Your task to perform on an android device: add a contact in the contacts app Image 0: 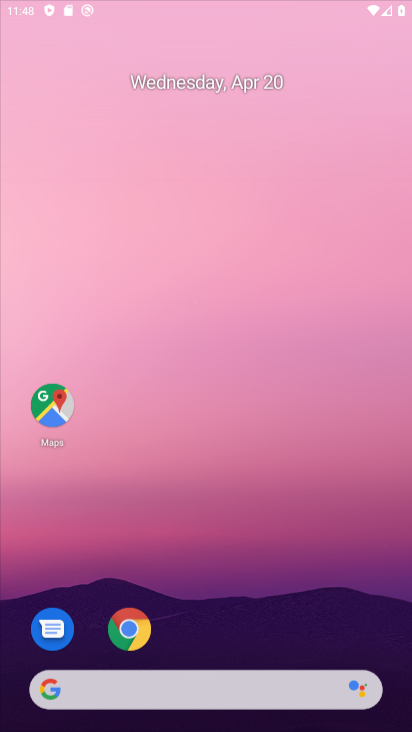
Step 0: click (273, 105)
Your task to perform on an android device: add a contact in the contacts app Image 1: 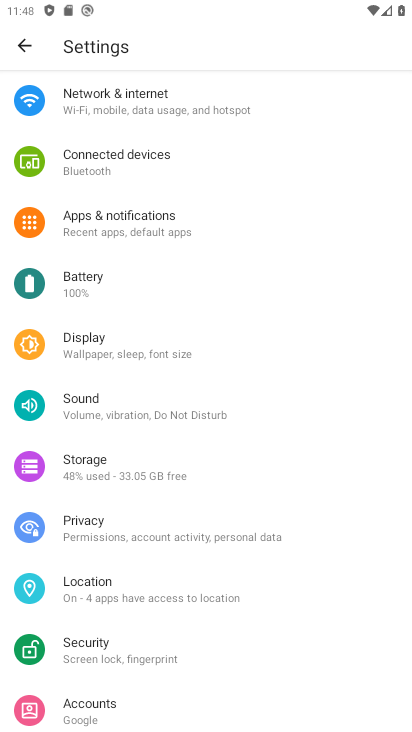
Step 1: press home button
Your task to perform on an android device: add a contact in the contacts app Image 2: 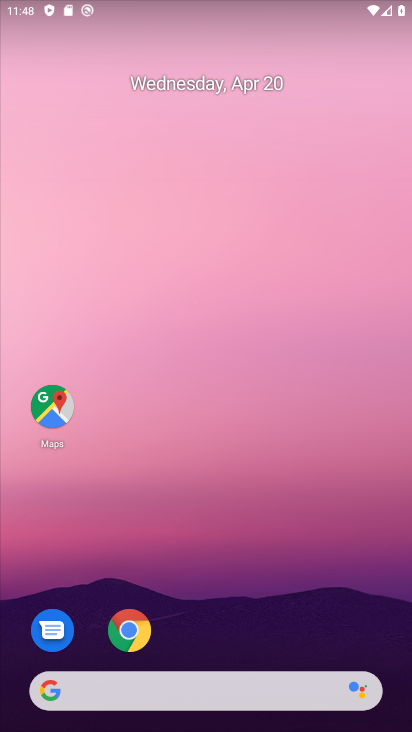
Step 2: drag from (332, 586) to (337, 146)
Your task to perform on an android device: add a contact in the contacts app Image 3: 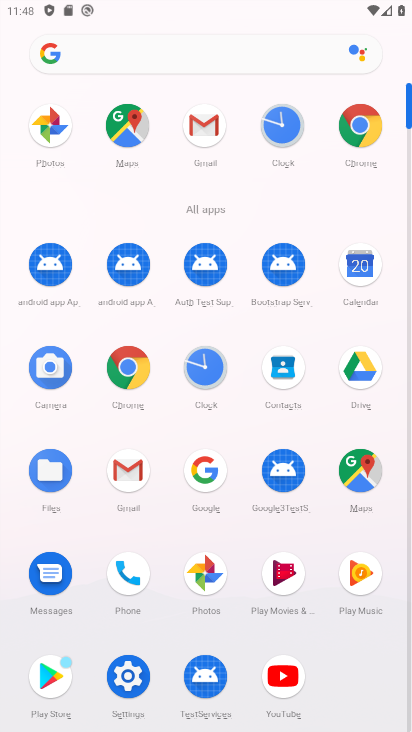
Step 3: click (287, 374)
Your task to perform on an android device: add a contact in the contacts app Image 4: 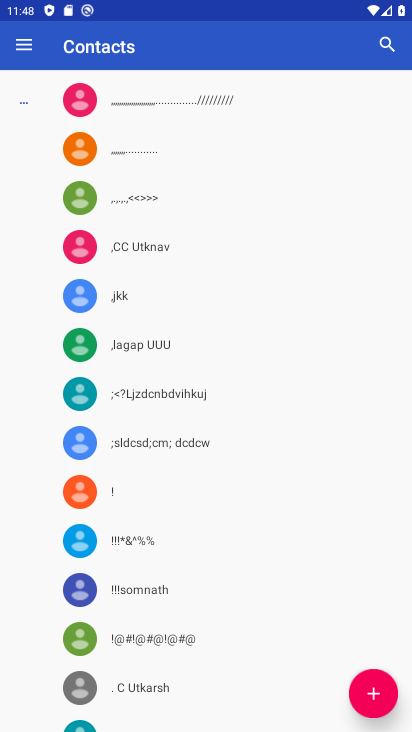
Step 4: click (378, 688)
Your task to perform on an android device: add a contact in the contacts app Image 5: 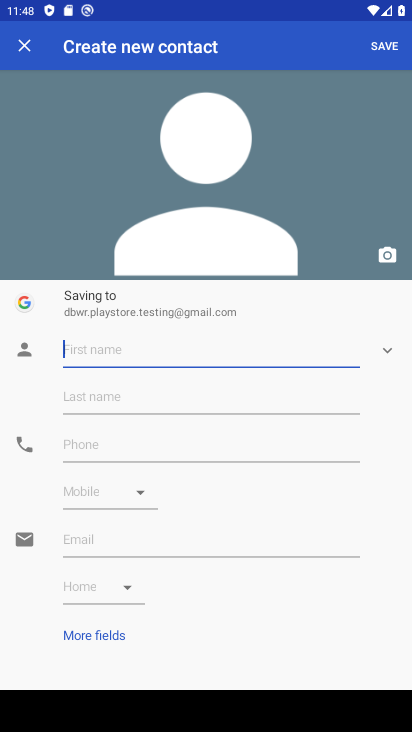
Step 5: click (236, 357)
Your task to perform on an android device: add a contact in the contacts app Image 6: 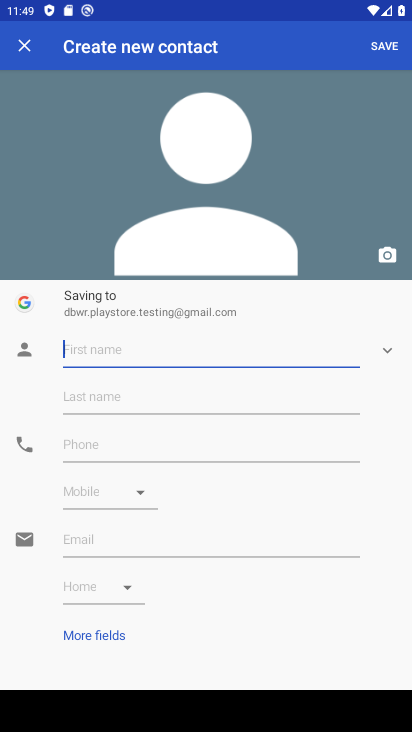
Step 6: type "nljhjlkhnjl"
Your task to perform on an android device: add a contact in the contacts app Image 7: 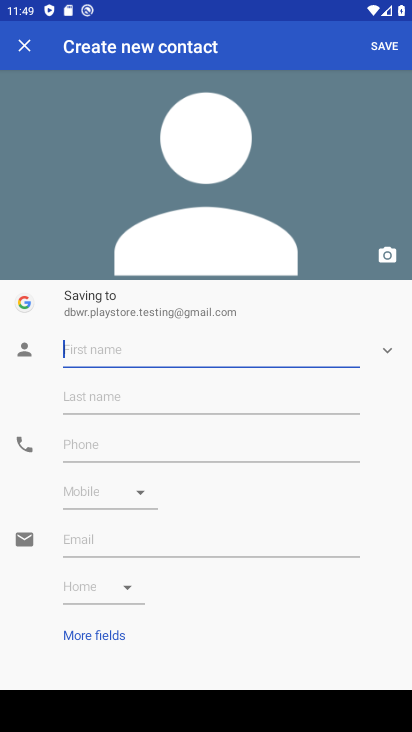
Step 7: click (227, 452)
Your task to perform on an android device: add a contact in the contacts app Image 8: 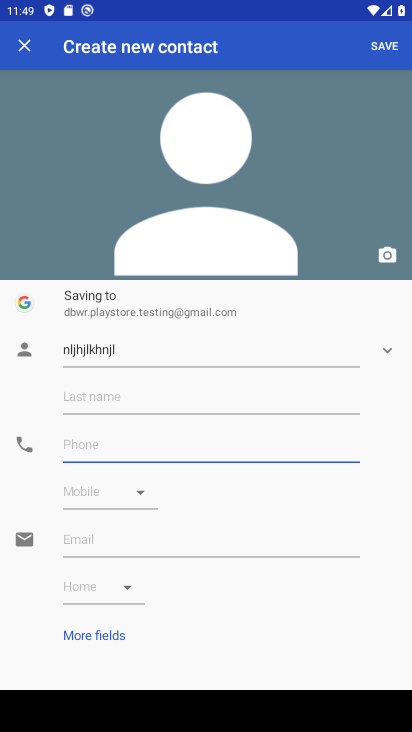
Step 8: type "9788698989"
Your task to perform on an android device: add a contact in the contacts app Image 9: 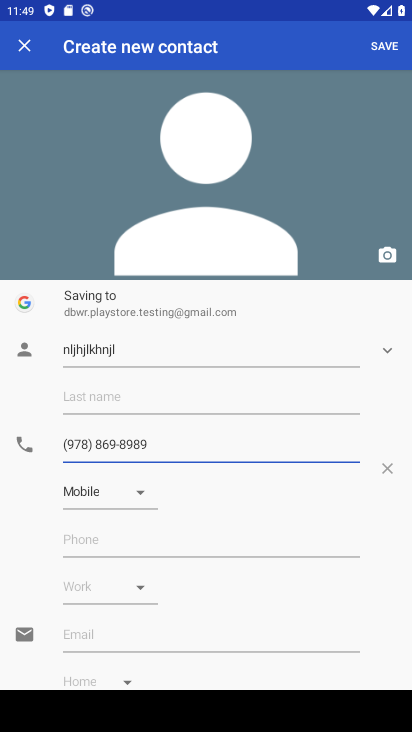
Step 9: click (367, 53)
Your task to perform on an android device: add a contact in the contacts app Image 10: 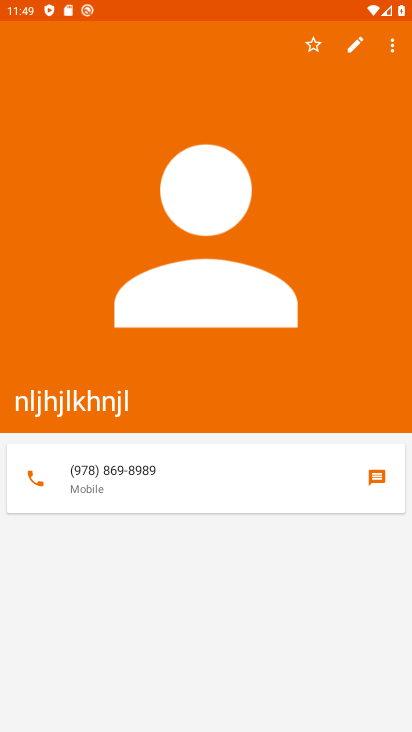
Step 10: task complete